Your task to perform on an android device: Open privacy settings Image 0: 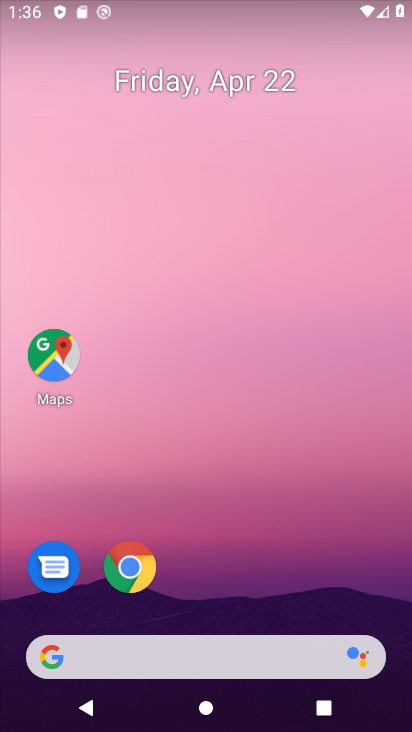
Step 0: drag from (236, 606) to (230, 108)
Your task to perform on an android device: Open privacy settings Image 1: 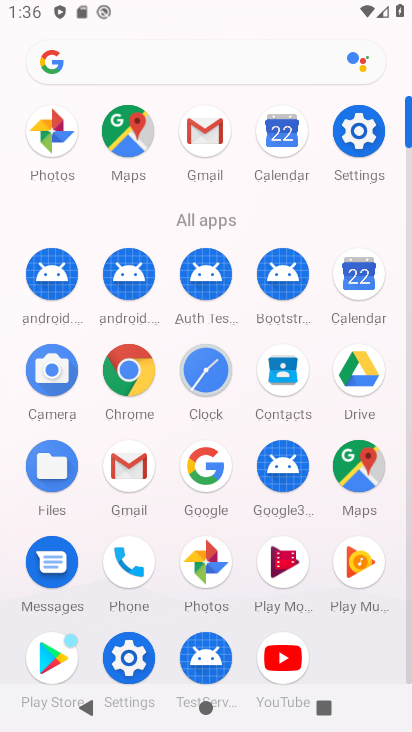
Step 1: click (366, 149)
Your task to perform on an android device: Open privacy settings Image 2: 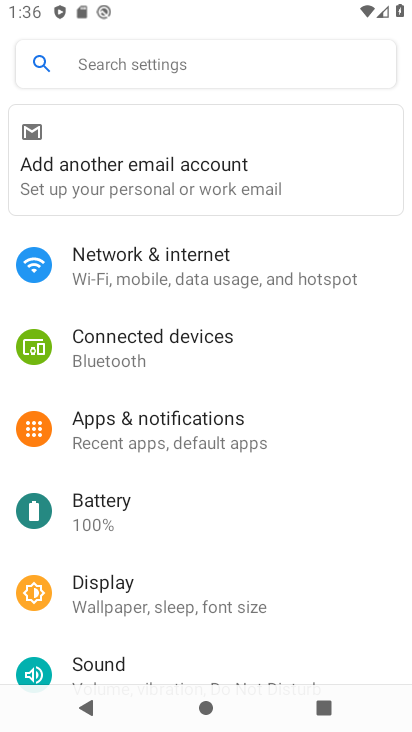
Step 2: drag from (195, 567) to (186, 127)
Your task to perform on an android device: Open privacy settings Image 3: 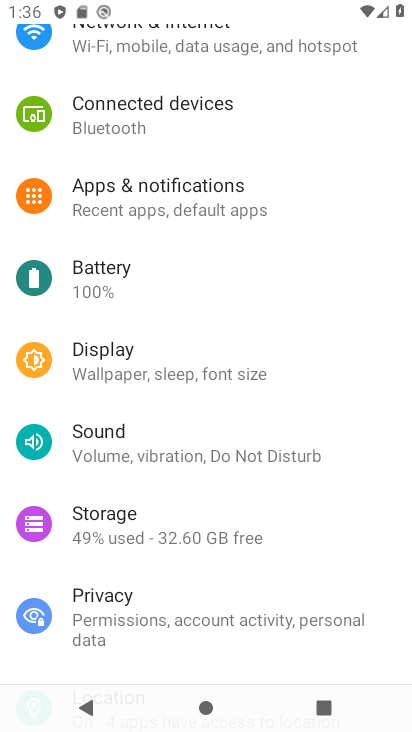
Step 3: click (208, 591)
Your task to perform on an android device: Open privacy settings Image 4: 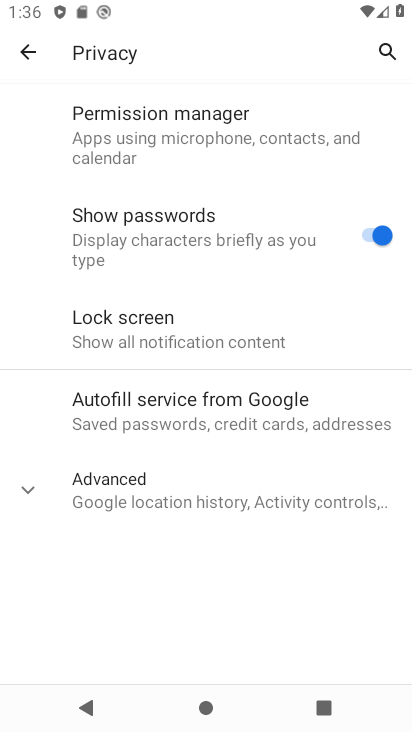
Step 4: task complete